Your task to perform on an android device: delete browsing data in the chrome app Image 0: 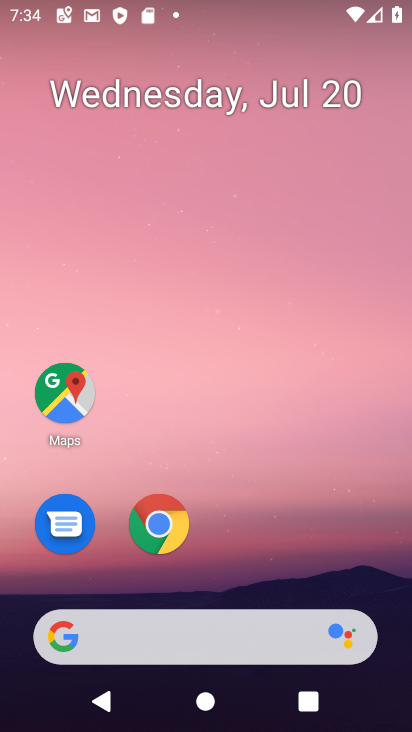
Step 0: click (161, 535)
Your task to perform on an android device: delete browsing data in the chrome app Image 1: 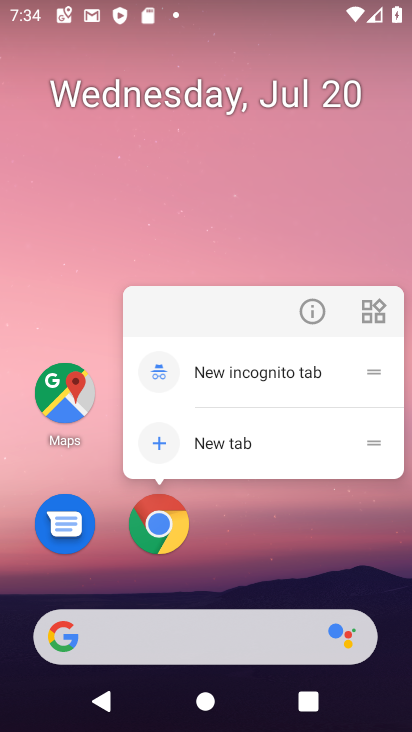
Step 1: click (158, 516)
Your task to perform on an android device: delete browsing data in the chrome app Image 2: 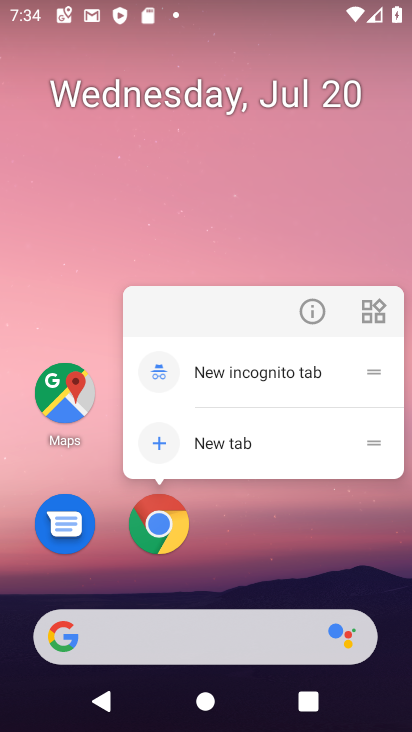
Step 2: click (161, 527)
Your task to perform on an android device: delete browsing data in the chrome app Image 3: 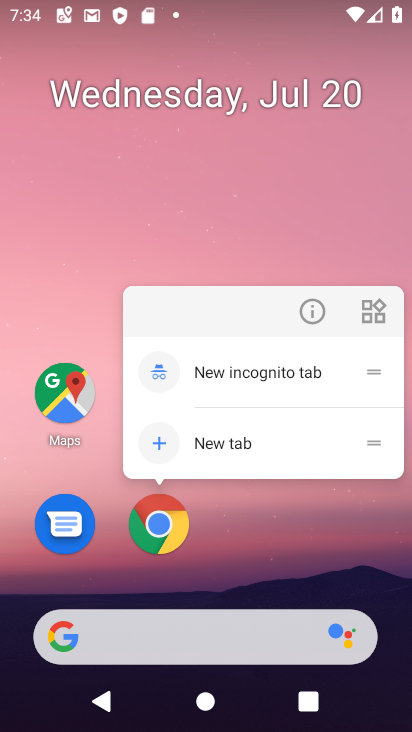
Step 3: click (157, 521)
Your task to perform on an android device: delete browsing data in the chrome app Image 4: 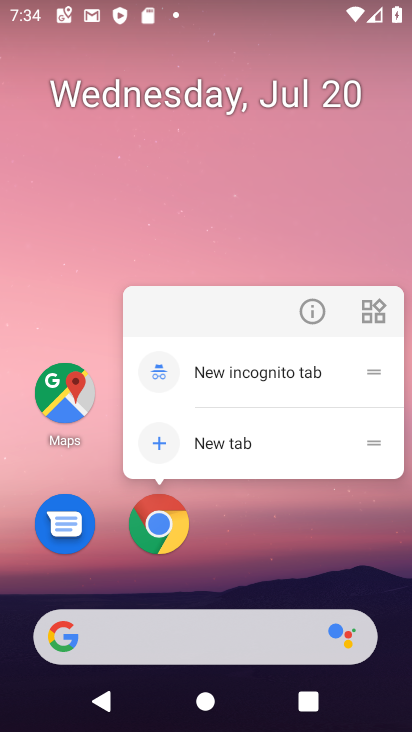
Step 4: click (157, 520)
Your task to perform on an android device: delete browsing data in the chrome app Image 5: 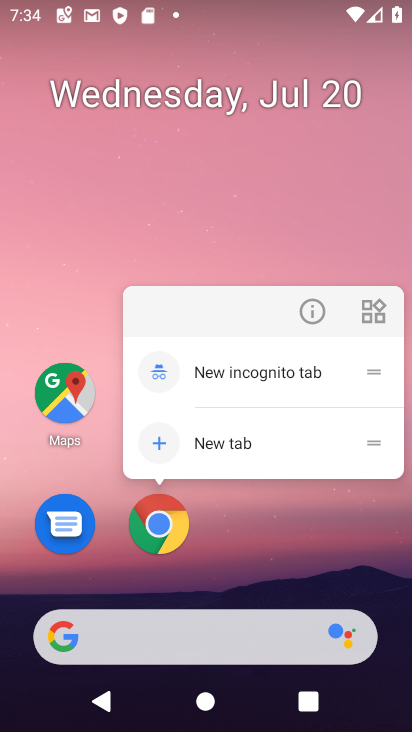
Step 5: click (164, 526)
Your task to perform on an android device: delete browsing data in the chrome app Image 6: 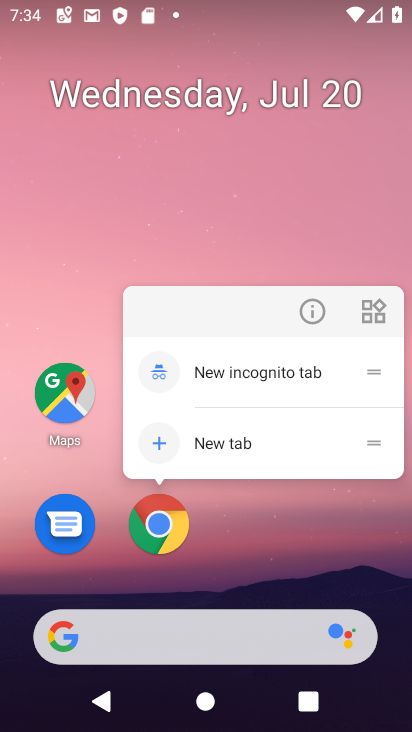
Step 6: click (143, 532)
Your task to perform on an android device: delete browsing data in the chrome app Image 7: 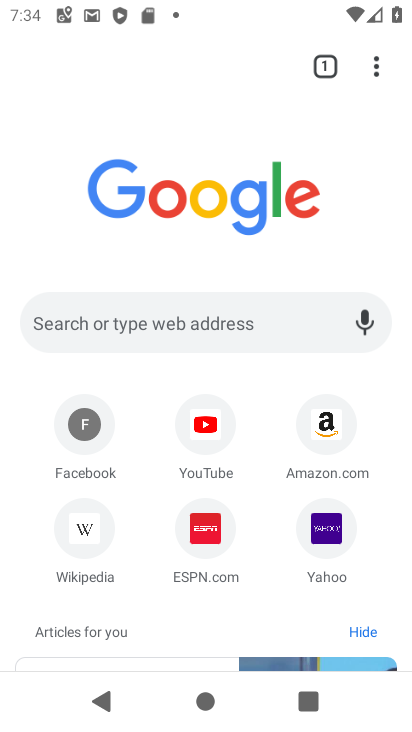
Step 7: drag from (376, 62) to (145, 555)
Your task to perform on an android device: delete browsing data in the chrome app Image 8: 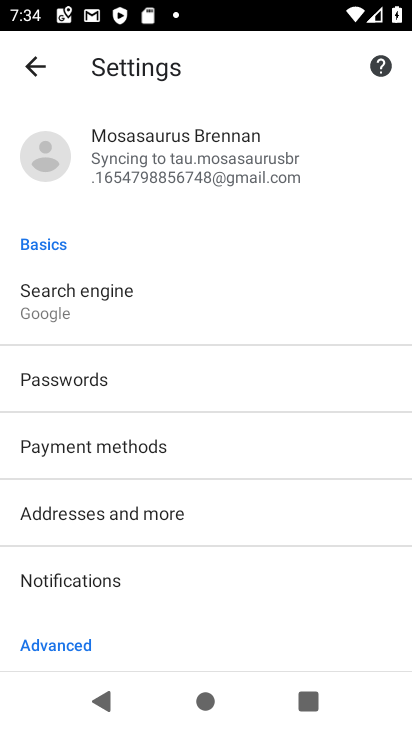
Step 8: drag from (265, 534) to (330, 305)
Your task to perform on an android device: delete browsing data in the chrome app Image 9: 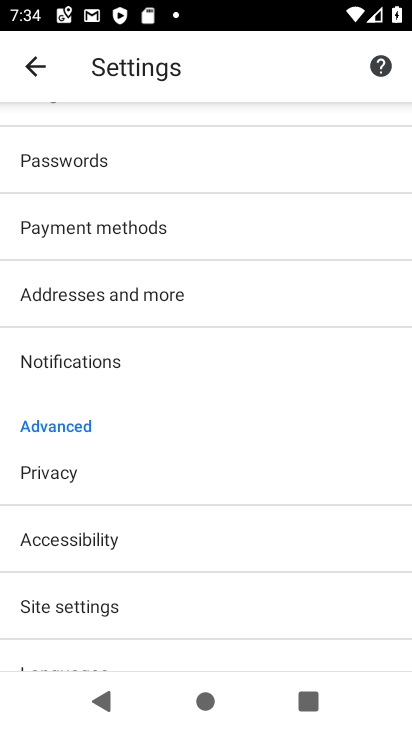
Step 9: click (60, 471)
Your task to perform on an android device: delete browsing data in the chrome app Image 10: 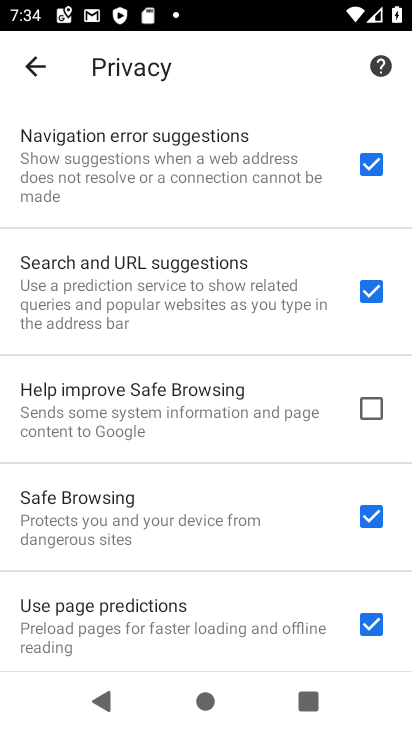
Step 10: drag from (232, 594) to (298, 383)
Your task to perform on an android device: delete browsing data in the chrome app Image 11: 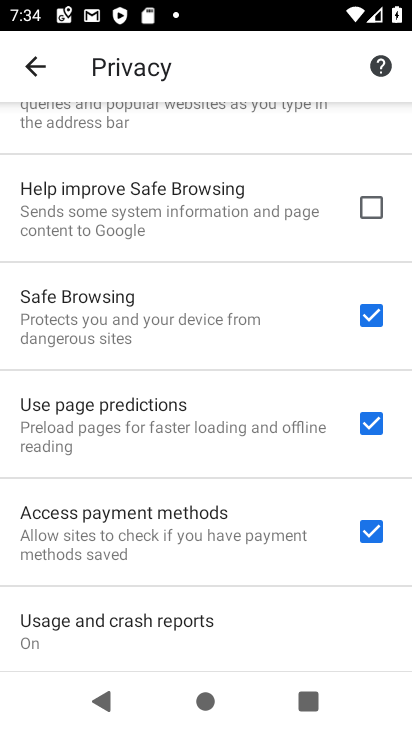
Step 11: drag from (229, 566) to (261, 189)
Your task to perform on an android device: delete browsing data in the chrome app Image 12: 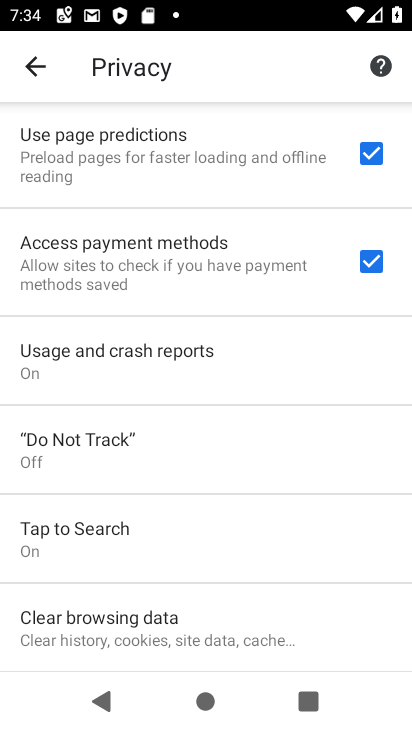
Step 12: click (113, 632)
Your task to perform on an android device: delete browsing data in the chrome app Image 13: 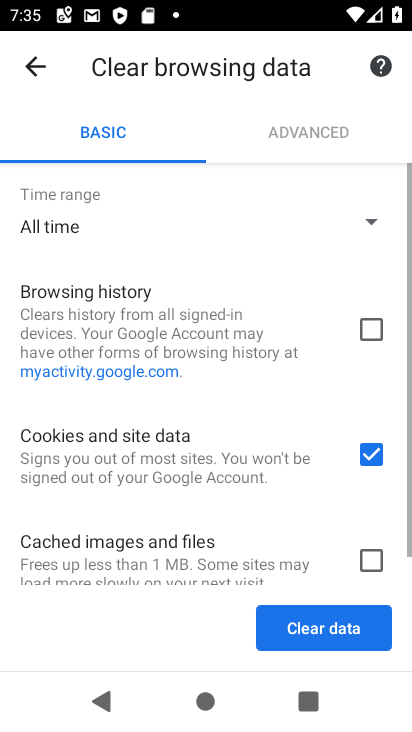
Step 13: click (382, 330)
Your task to perform on an android device: delete browsing data in the chrome app Image 14: 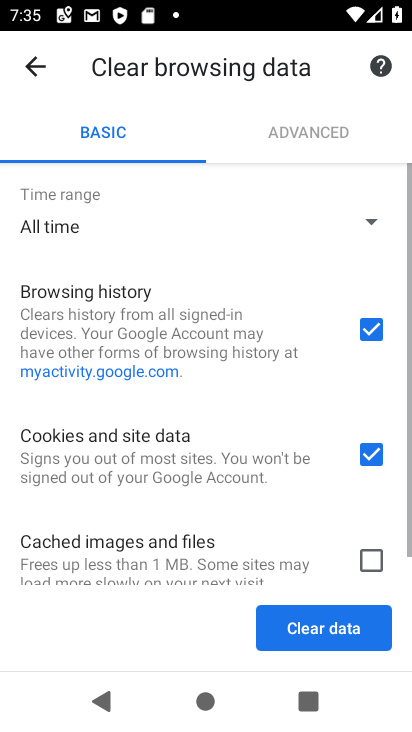
Step 14: click (371, 562)
Your task to perform on an android device: delete browsing data in the chrome app Image 15: 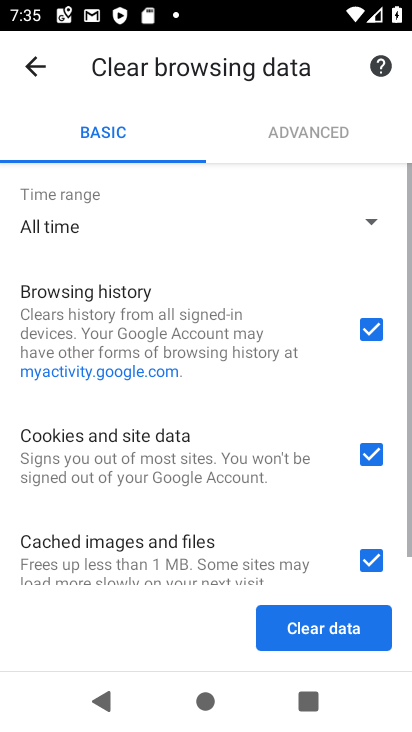
Step 15: click (309, 626)
Your task to perform on an android device: delete browsing data in the chrome app Image 16: 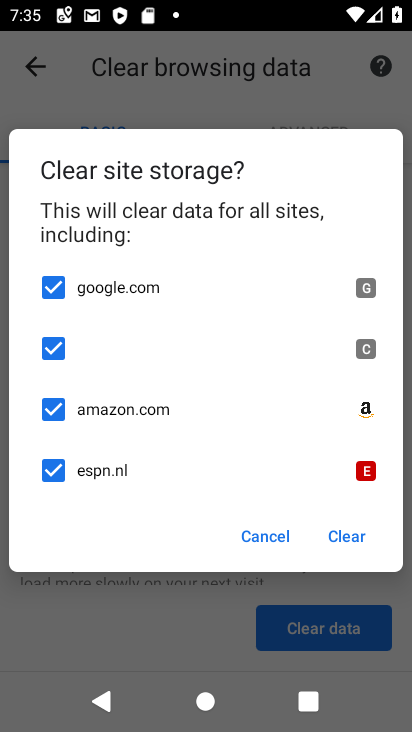
Step 16: click (332, 529)
Your task to perform on an android device: delete browsing data in the chrome app Image 17: 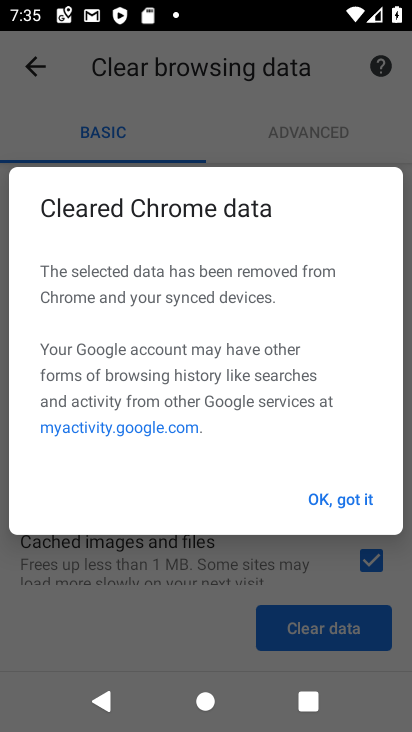
Step 17: click (329, 497)
Your task to perform on an android device: delete browsing data in the chrome app Image 18: 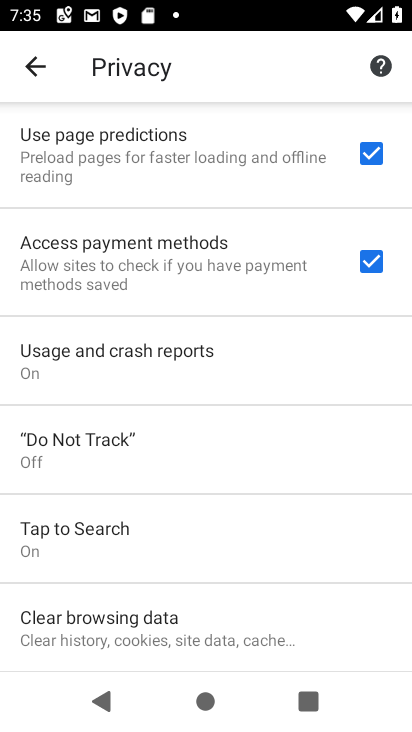
Step 18: task complete